Your task to perform on an android device: turn off airplane mode Image 0: 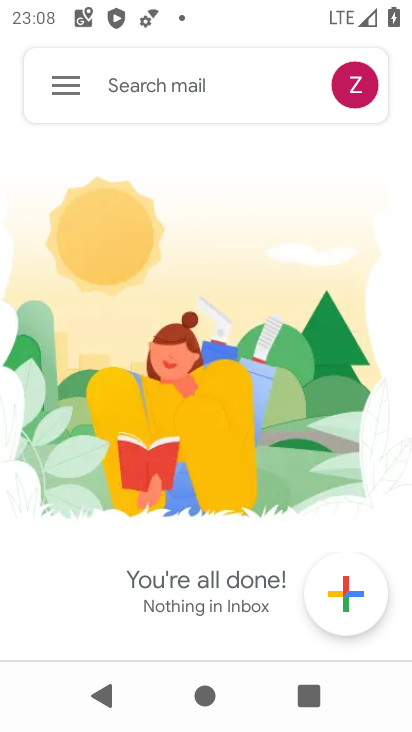
Step 0: press home button
Your task to perform on an android device: turn off airplane mode Image 1: 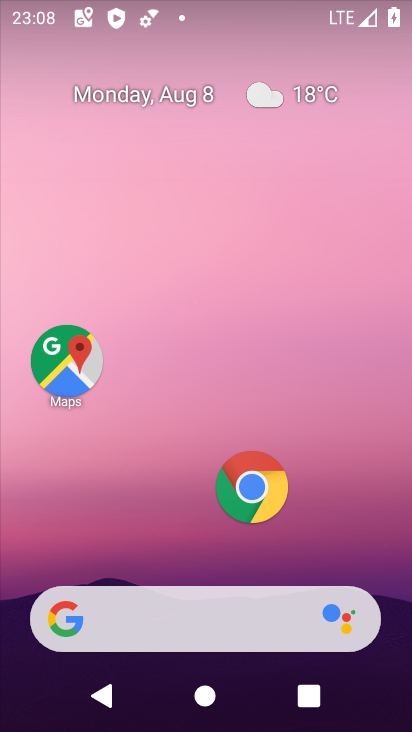
Step 1: drag from (201, 569) to (152, 159)
Your task to perform on an android device: turn off airplane mode Image 2: 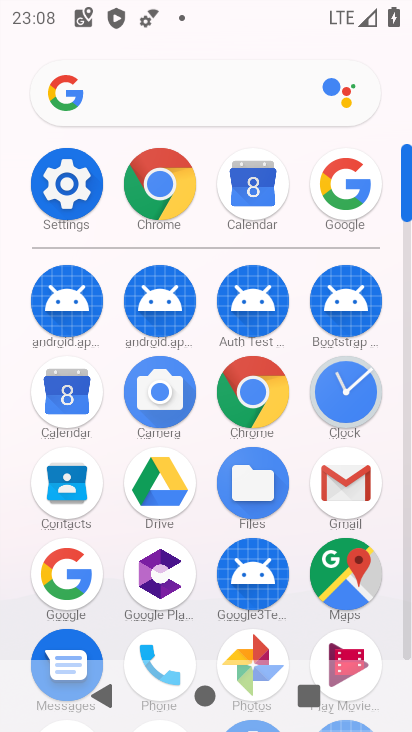
Step 2: click (62, 198)
Your task to perform on an android device: turn off airplane mode Image 3: 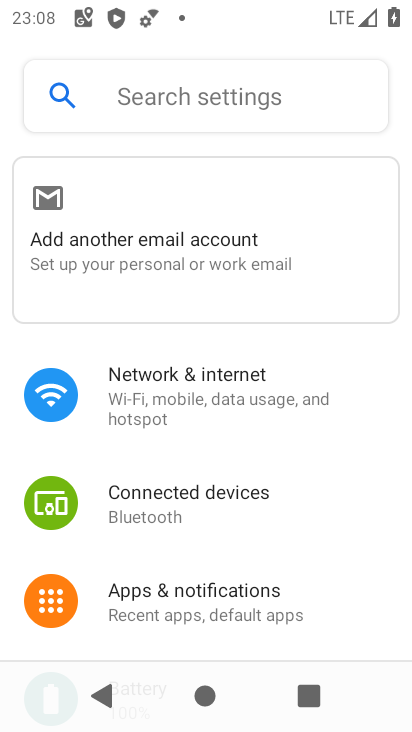
Step 3: click (159, 401)
Your task to perform on an android device: turn off airplane mode Image 4: 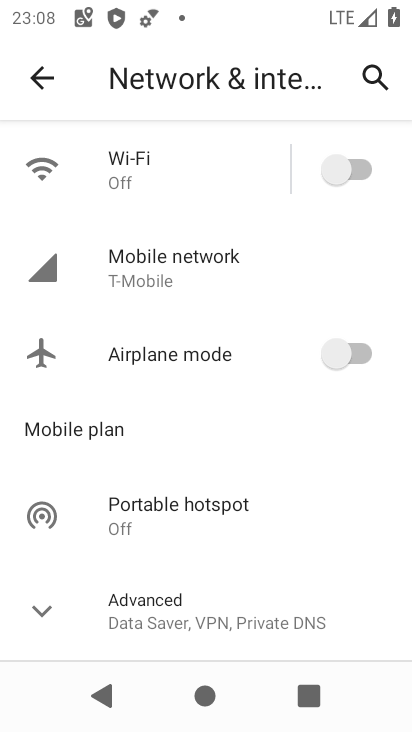
Step 4: task complete